Your task to perform on an android device: open a new tab in the chrome app Image 0: 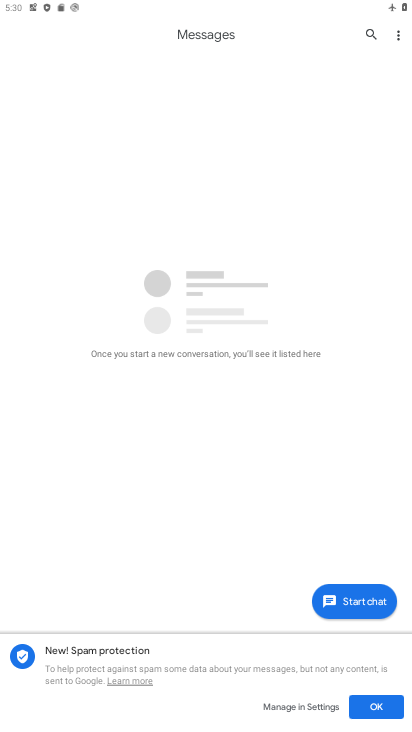
Step 0: press home button
Your task to perform on an android device: open a new tab in the chrome app Image 1: 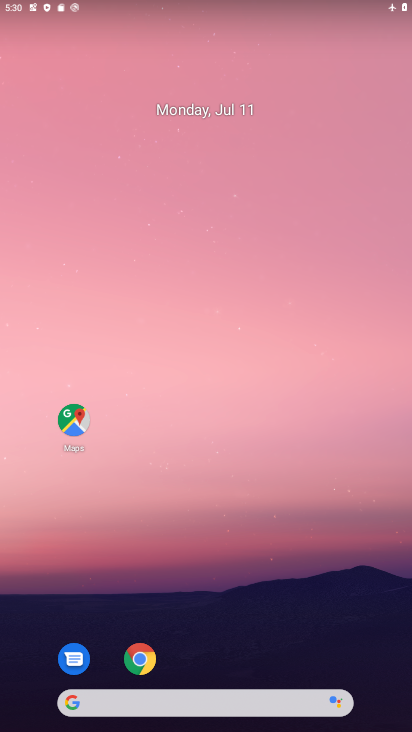
Step 1: click (137, 664)
Your task to perform on an android device: open a new tab in the chrome app Image 2: 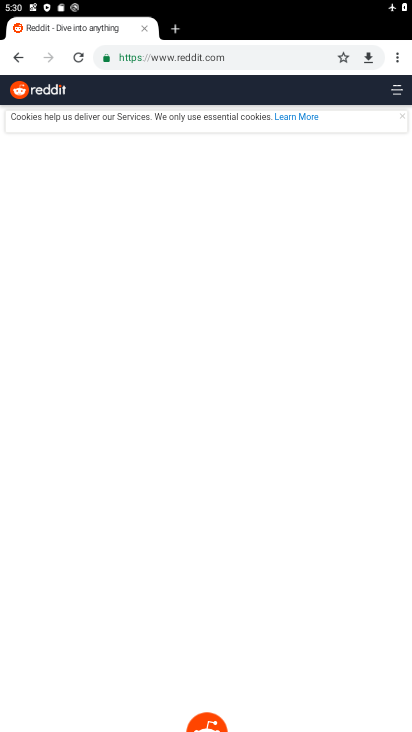
Step 2: click (401, 62)
Your task to perform on an android device: open a new tab in the chrome app Image 3: 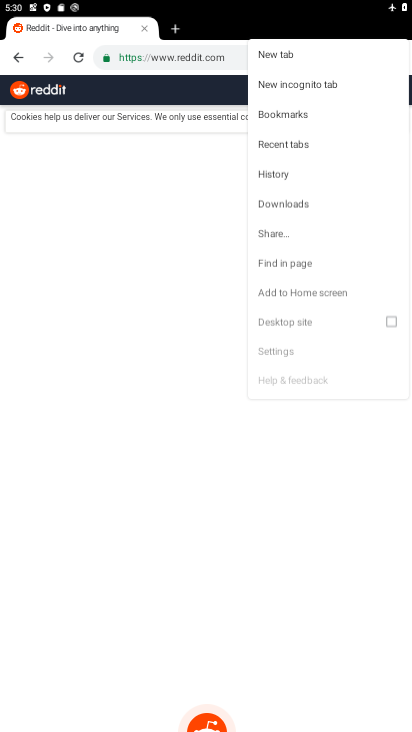
Step 3: click (399, 63)
Your task to perform on an android device: open a new tab in the chrome app Image 4: 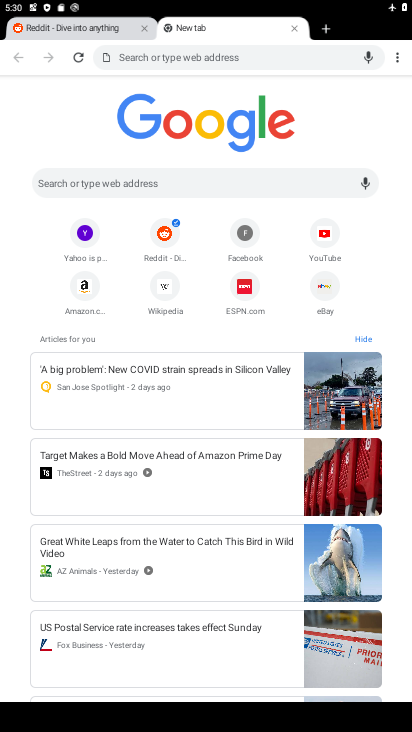
Step 4: task complete